Your task to perform on an android device: check battery use Image 0: 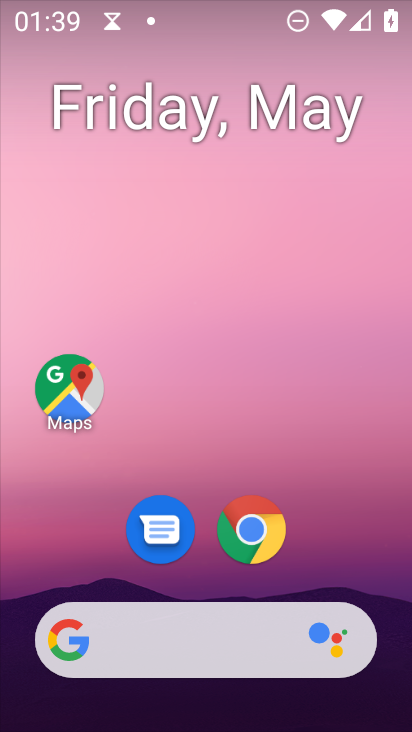
Step 0: drag from (318, 529) to (318, 223)
Your task to perform on an android device: check battery use Image 1: 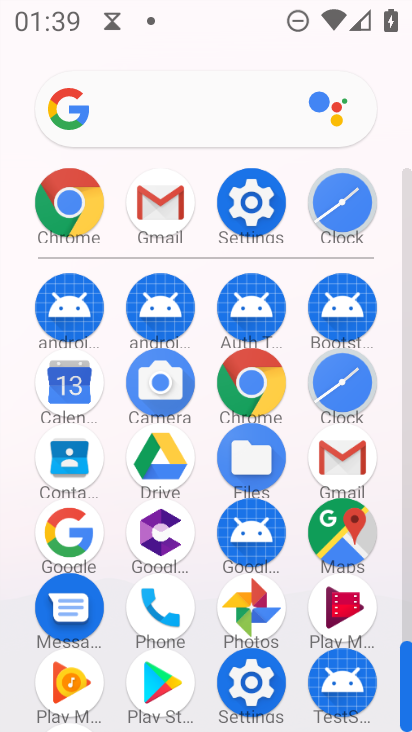
Step 1: click (258, 685)
Your task to perform on an android device: check battery use Image 2: 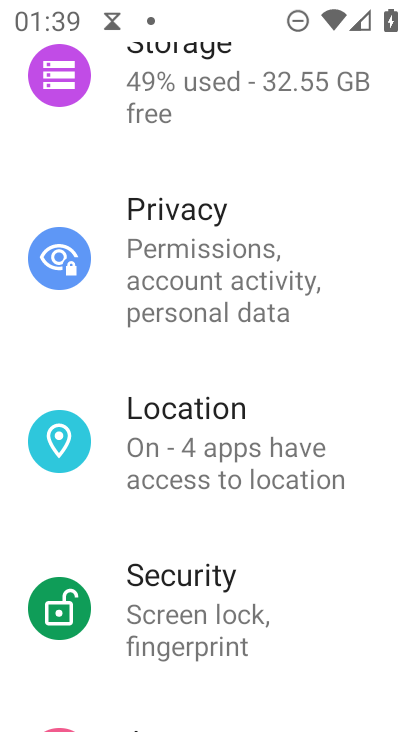
Step 2: drag from (254, 138) to (215, 663)
Your task to perform on an android device: check battery use Image 3: 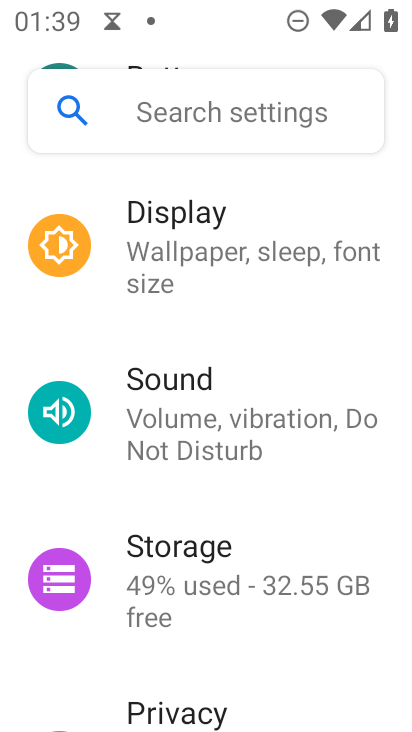
Step 3: drag from (247, 209) to (190, 645)
Your task to perform on an android device: check battery use Image 4: 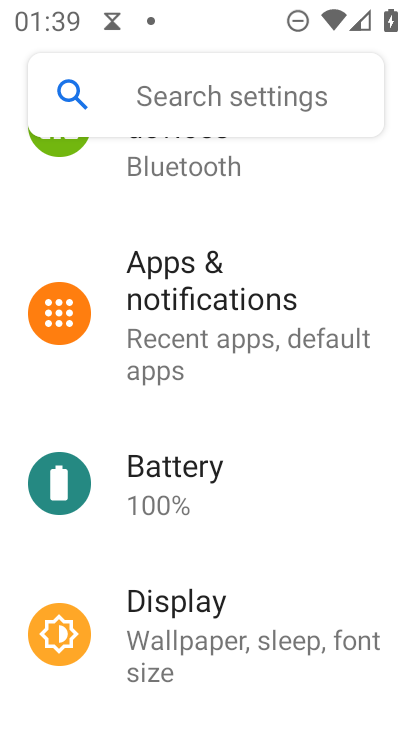
Step 4: click (194, 481)
Your task to perform on an android device: check battery use Image 5: 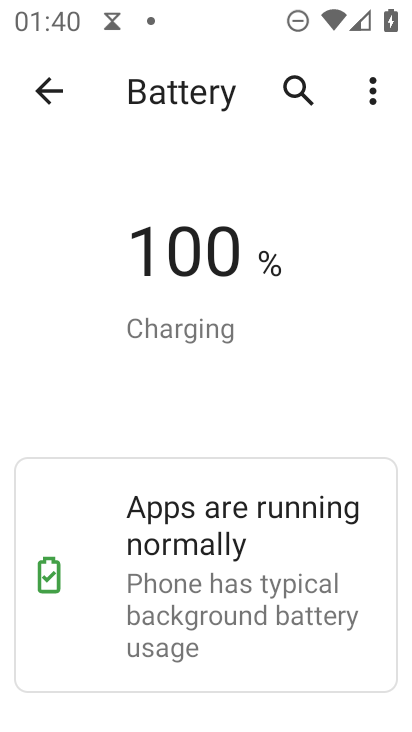
Step 5: task complete